Your task to perform on an android device: change text size in settings app Image 0: 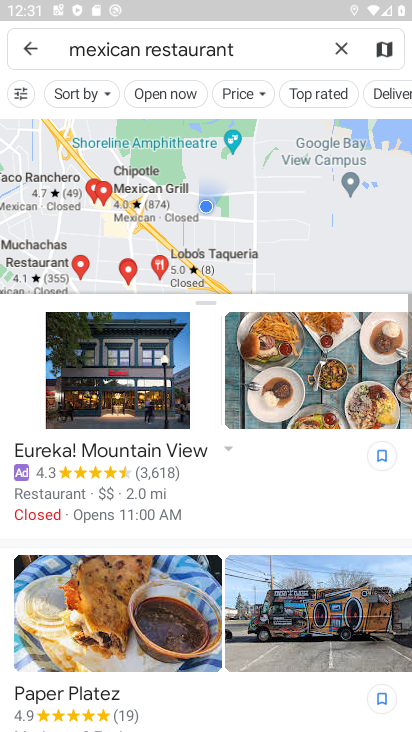
Step 0: press home button
Your task to perform on an android device: change text size in settings app Image 1: 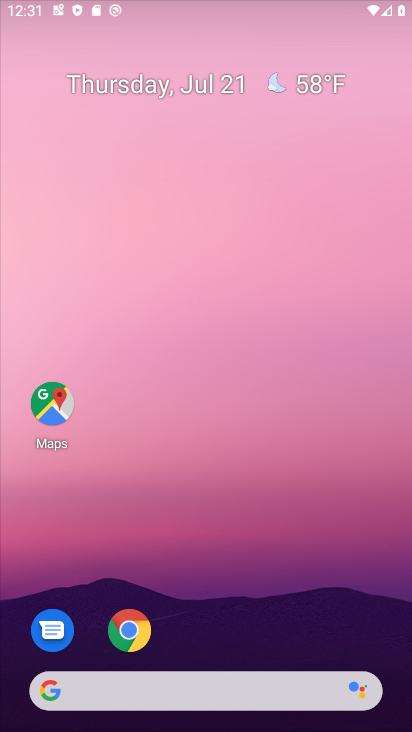
Step 1: drag from (215, 681) to (237, 109)
Your task to perform on an android device: change text size in settings app Image 2: 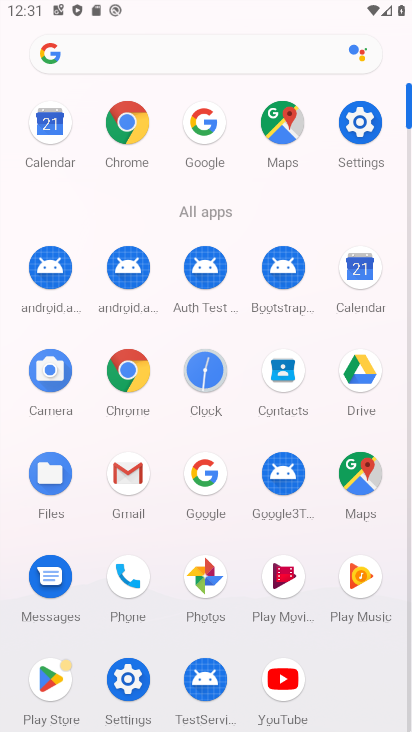
Step 2: click (354, 128)
Your task to perform on an android device: change text size in settings app Image 3: 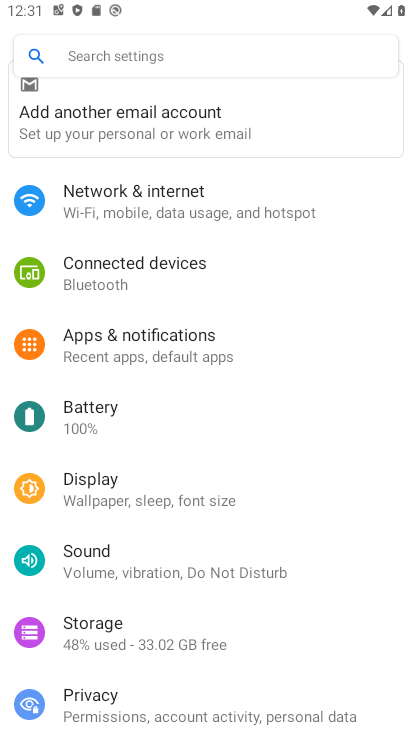
Step 3: click (179, 488)
Your task to perform on an android device: change text size in settings app Image 4: 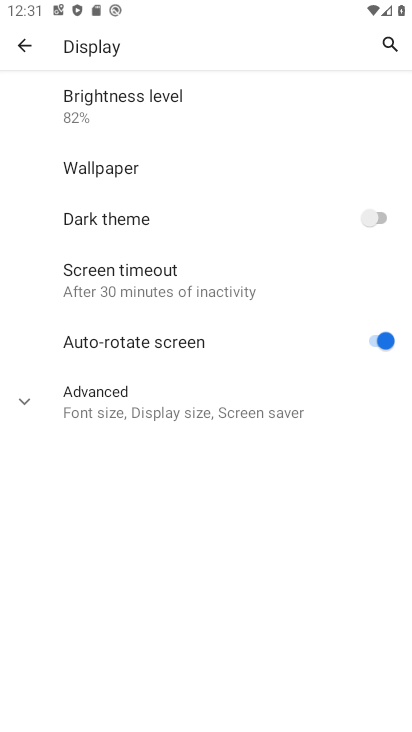
Step 4: click (93, 399)
Your task to perform on an android device: change text size in settings app Image 5: 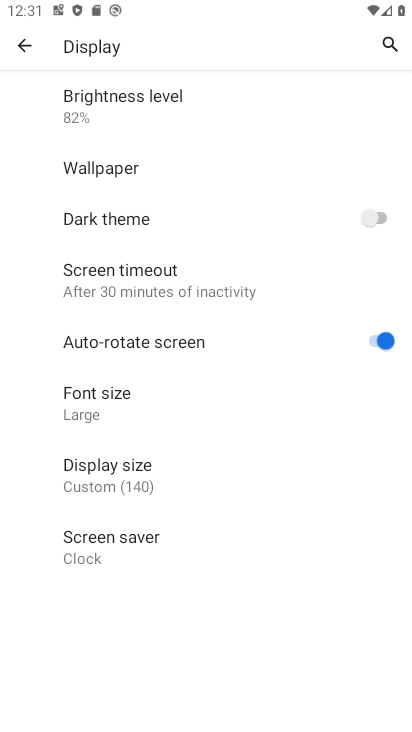
Step 5: click (116, 405)
Your task to perform on an android device: change text size in settings app Image 6: 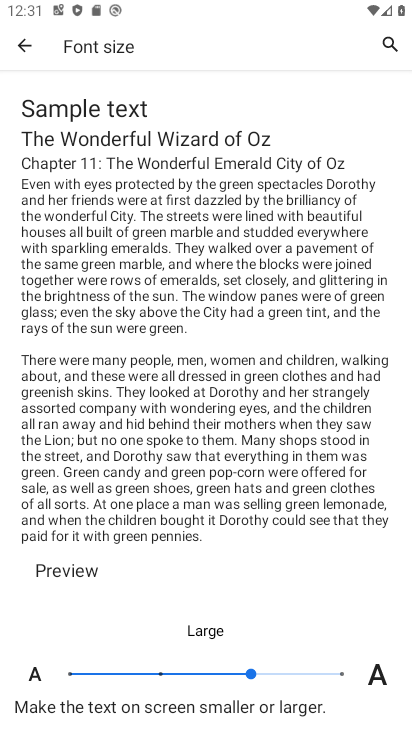
Step 6: task complete